Your task to perform on an android device: Open Youtube and go to "Your channel" Image 0: 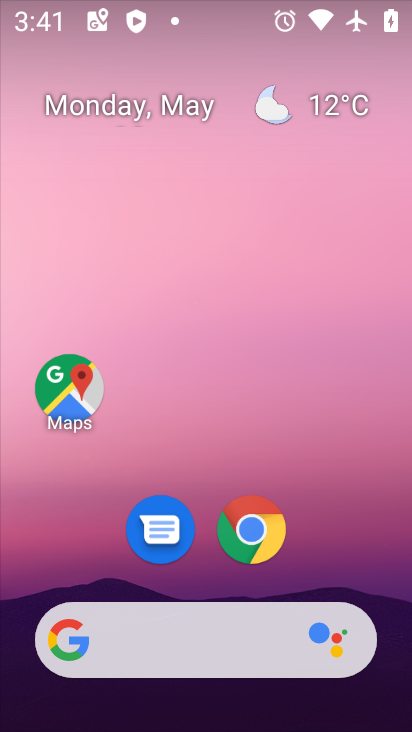
Step 0: drag from (317, 586) to (313, 55)
Your task to perform on an android device: Open Youtube and go to "Your channel" Image 1: 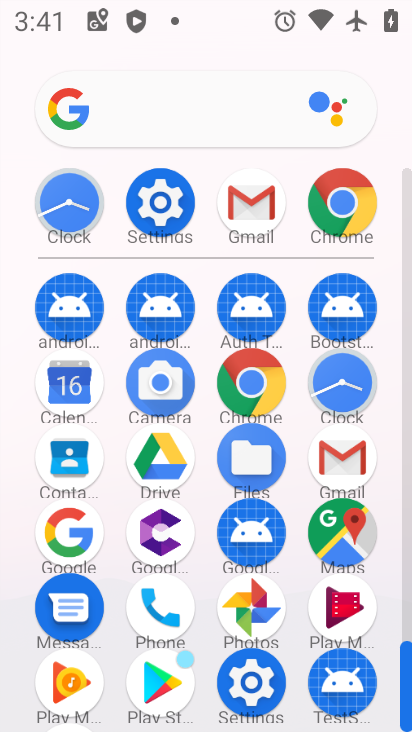
Step 1: drag from (286, 653) to (329, 363)
Your task to perform on an android device: Open Youtube and go to "Your channel" Image 2: 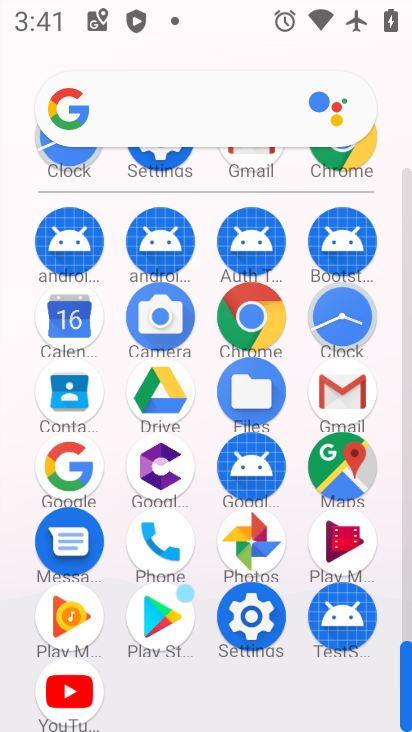
Step 2: click (72, 700)
Your task to perform on an android device: Open Youtube and go to "Your channel" Image 3: 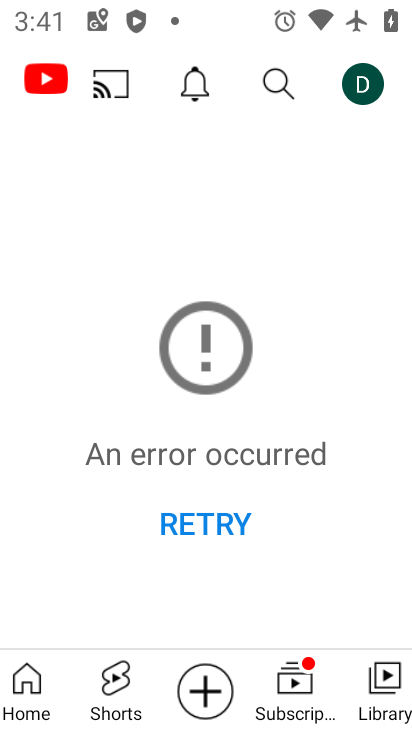
Step 3: click (359, 89)
Your task to perform on an android device: Open Youtube and go to "Your channel" Image 4: 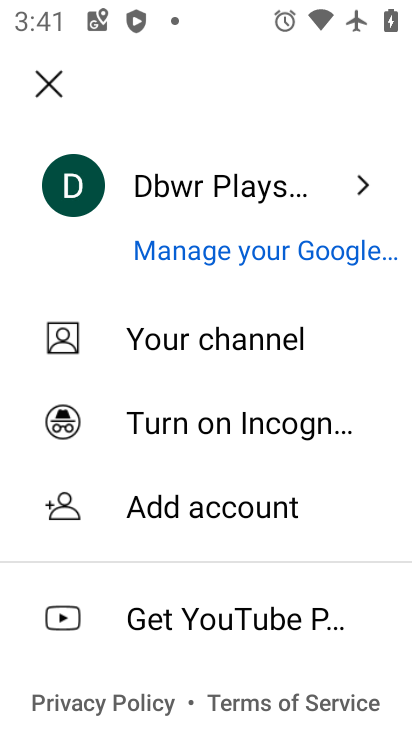
Step 4: click (181, 340)
Your task to perform on an android device: Open Youtube and go to "Your channel" Image 5: 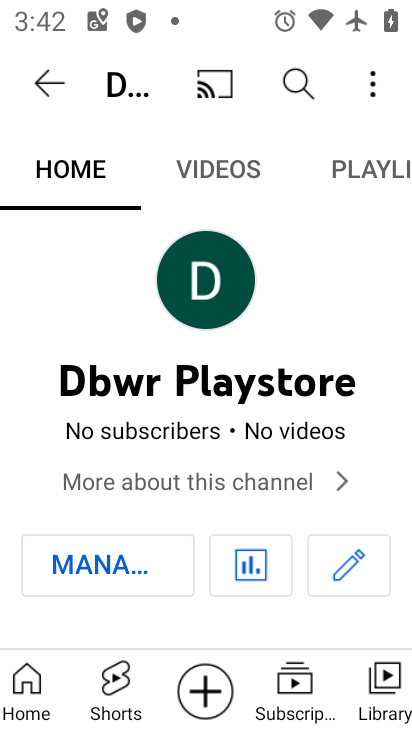
Step 5: task complete